Your task to perform on an android device: turn on translation in the chrome app Image 0: 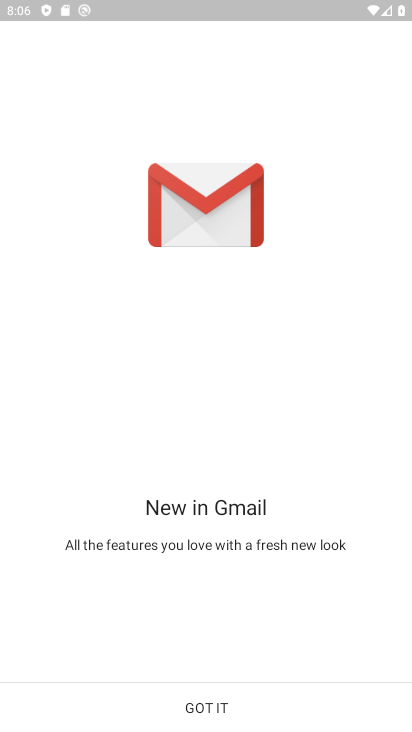
Step 0: press home button
Your task to perform on an android device: turn on translation in the chrome app Image 1: 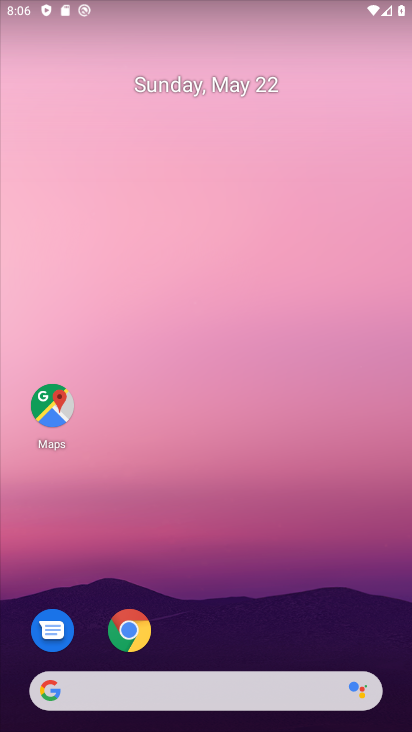
Step 1: click (133, 634)
Your task to perform on an android device: turn on translation in the chrome app Image 2: 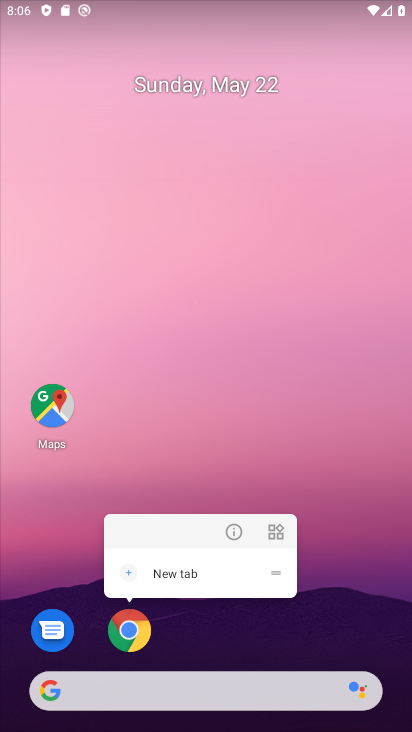
Step 2: click (135, 629)
Your task to perform on an android device: turn on translation in the chrome app Image 3: 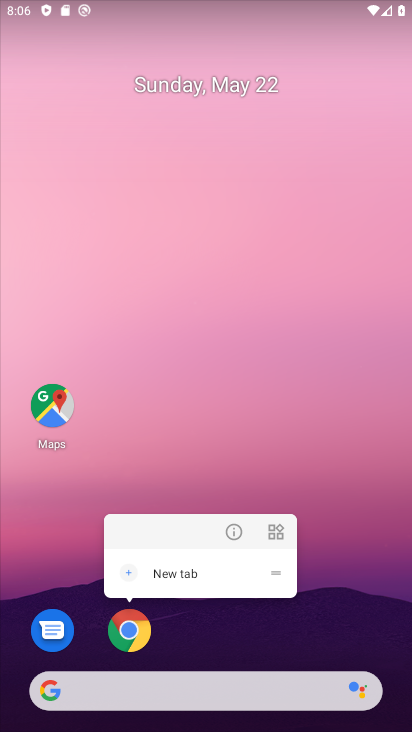
Step 3: click (135, 631)
Your task to perform on an android device: turn on translation in the chrome app Image 4: 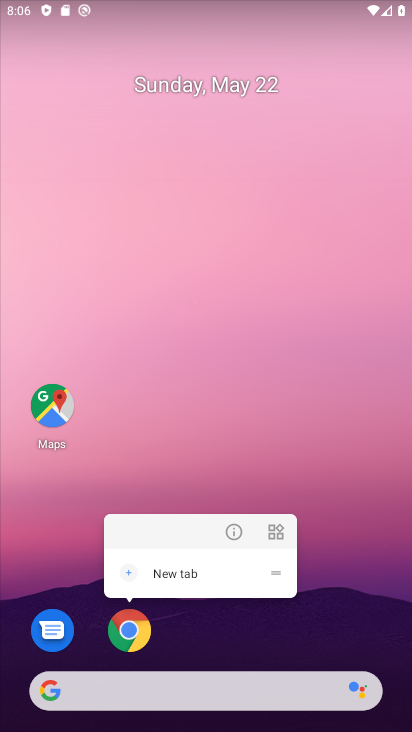
Step 4: click (127, 636)
Your task to perform on an android device: turn on translation in the chrome app Image 5: 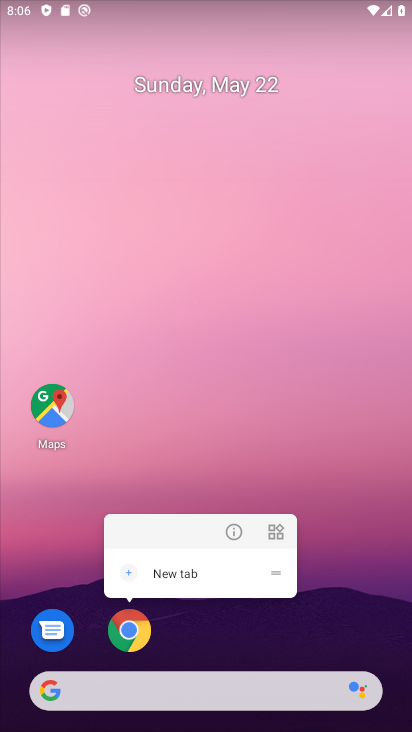
Step 5: click (136, 633)
Your task to perform on an android device: turn on translation in the chrome app Image 6: 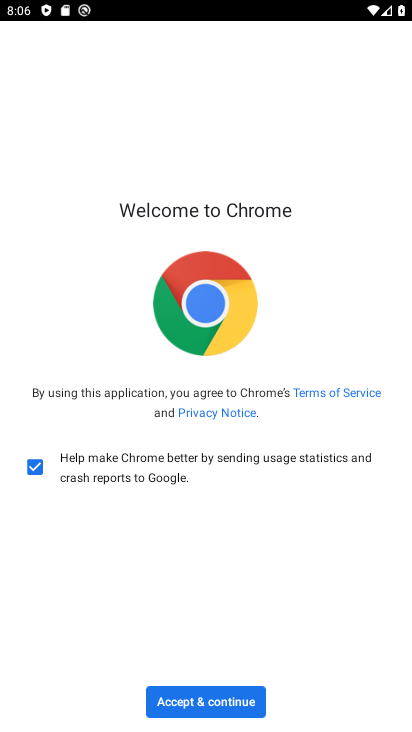
Step 6: click (227, 699)
Your task to perform on an android device: turn on translation in the chrome app Image 7: 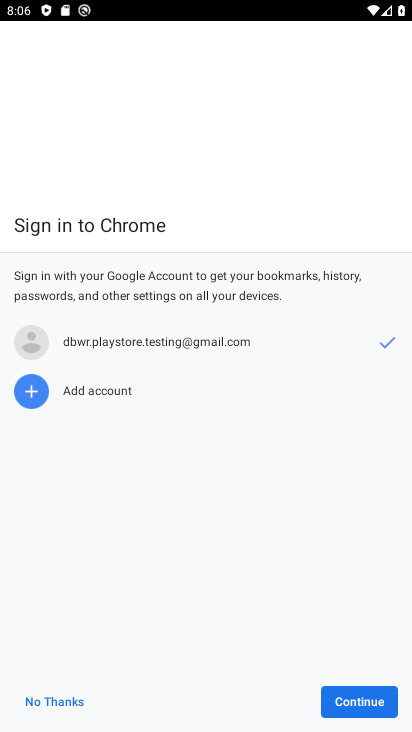
Step 7: click (364, 706)
Your task to perform on an android device: turn on translation in the chrome app Image 8: 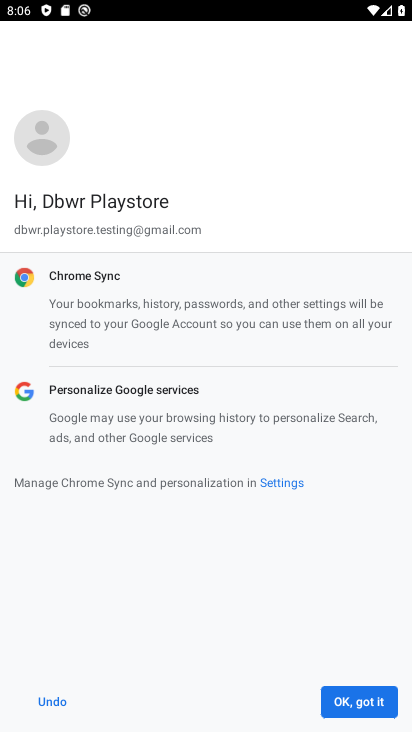
Step 8: click (364, 702)
Your task to perform on an android device: turn on translation in the chrome app Image 9: 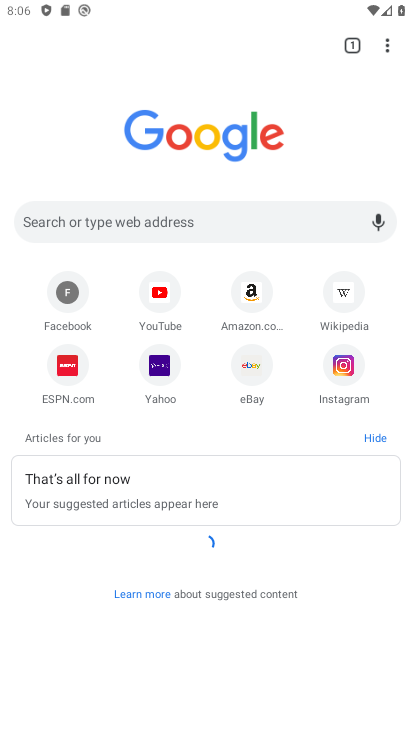
Step 9: drag from (383, 48) to (267, 382)
Your task to perform on an android device: turn on translation in the chrome app Image 10: 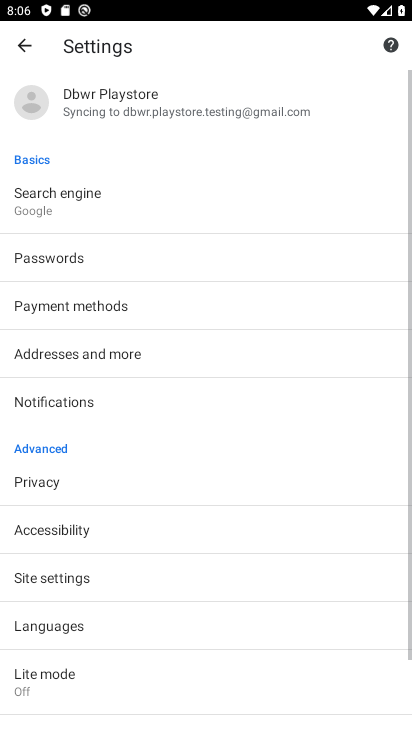
Step 10: drag from (139, 669) to (312, 273)
Your task to perform on an android device: turn on translation in the chrome app Image 11: 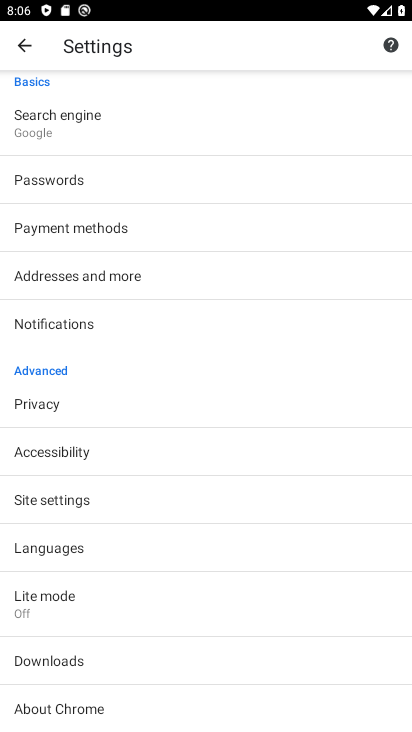
Step 11: click (141, 547)
Your task to perform on an android device: turn on translation in the chrome app Image 12: 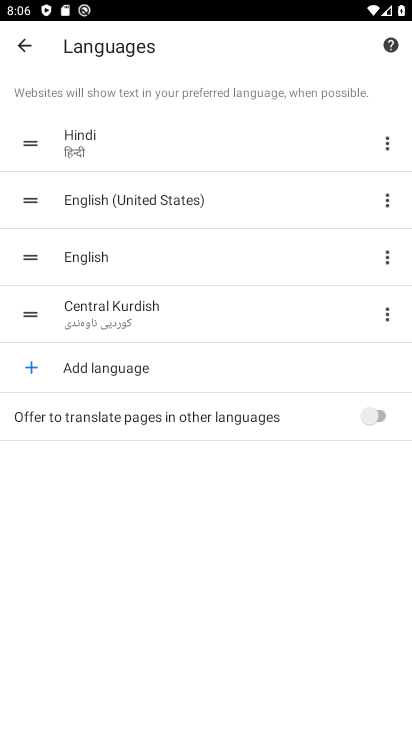
Step 12: click (381, 418)
Your task to perform on an android device: turn on translation in the chrome app Image 13: 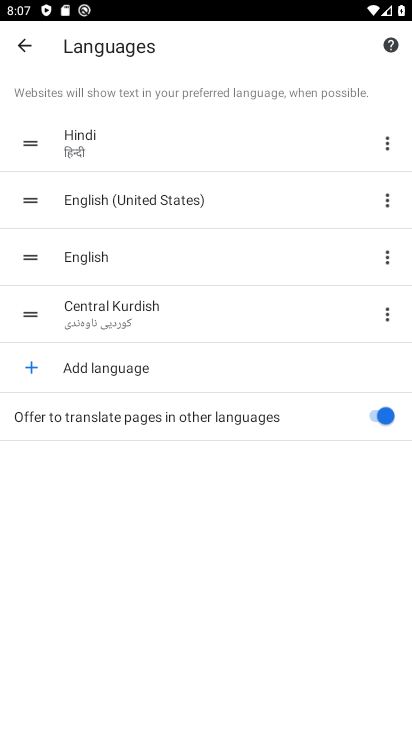
Step 13: task complete